Your task to perform on an android device: turn on showing notifications on the lock screen Image 0: 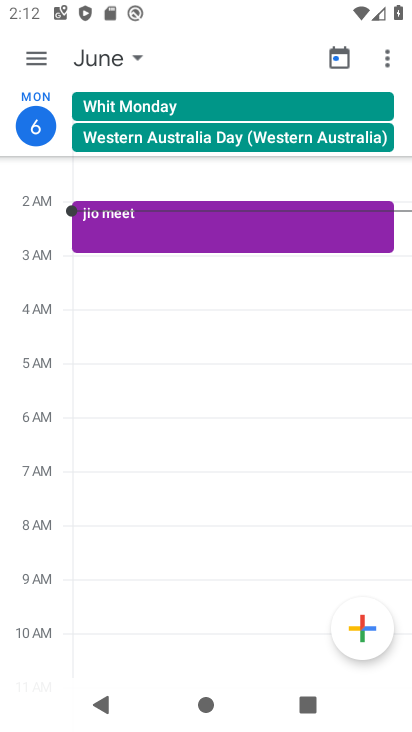
Step 0: press home button
Your task to perform on an android device: turn on showing notifications on the lock screen Image 1: 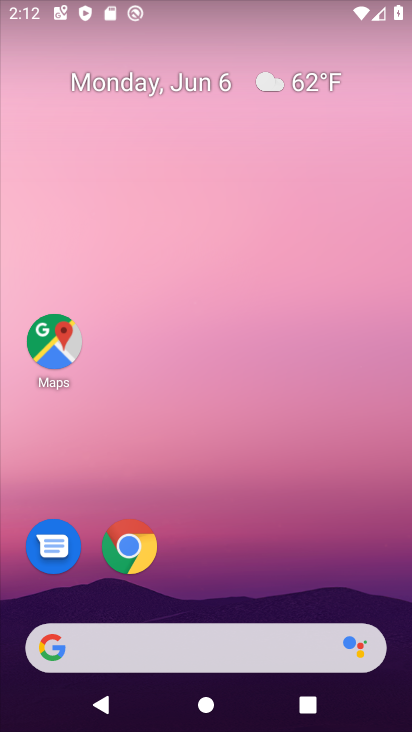
Step 1: drag from (327, 516) to (264, 92)
Your task to perform on an android device: turn on showing notifications on the lock screen Image 2: 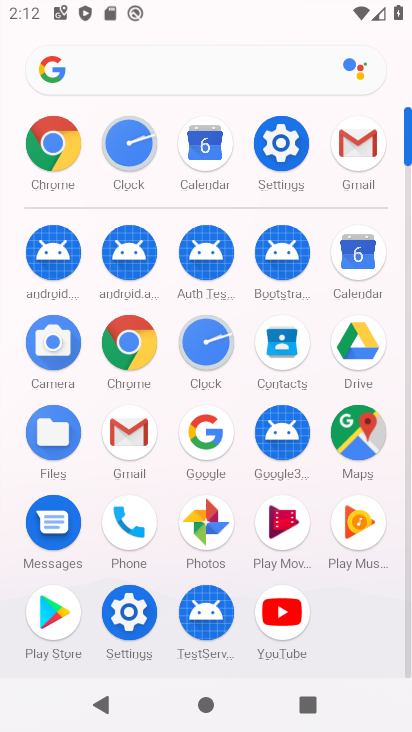
Step 2: click (280, 142)
Your task to perform on an android device: turn on showing notifications on the lock screen Image 3: 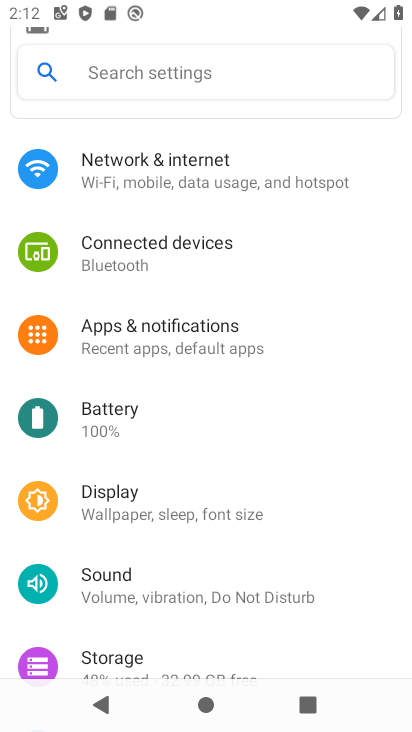
Step 3: click (206, 329)
Your task to perform on an android device: turn on showing notifications on the lock screen Image 4: 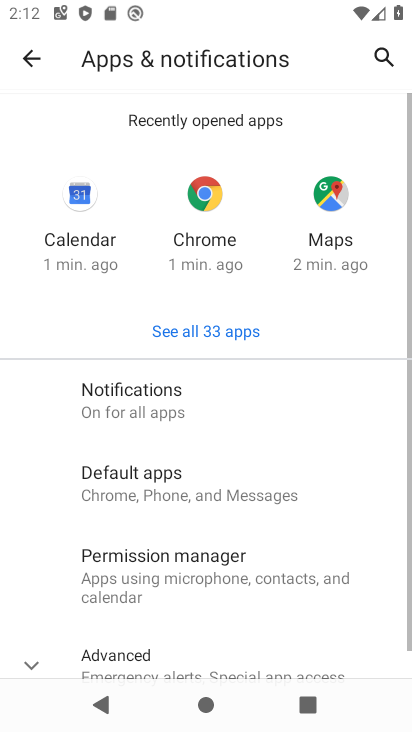
Step 4: drag from (202, 607) to (220, 312)
Your task to perform on an android device: turn on showing notifications on the lock screen Image 5: 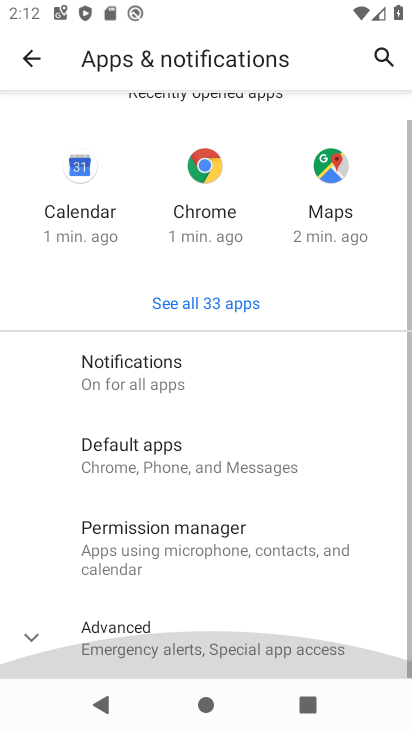
Step 5: click (220, 312)
Your task to perform on an android device: turn on showing notifications on the lock screen Image 6: 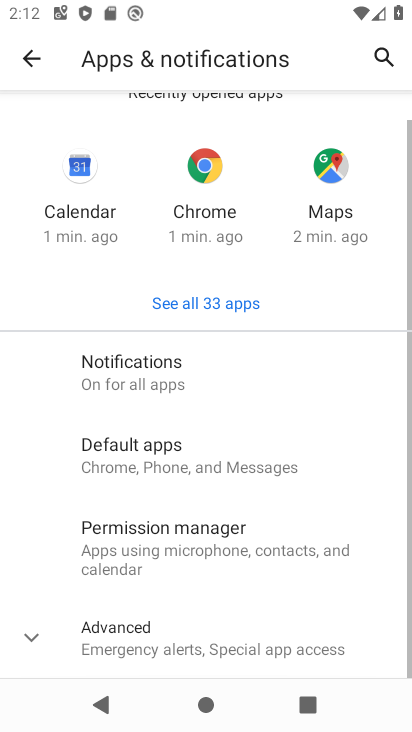
Step 6: click (144, 366)
Your task to perform on an android device: turn on showing notifications on the lock screen Image 7: 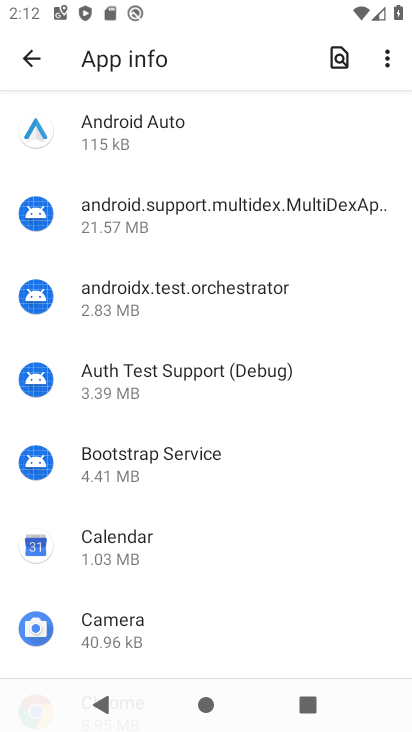
Step 7: click (41, 71)
Your task to perform on an android device: turn on showing notifications on the lock screen Image 8: 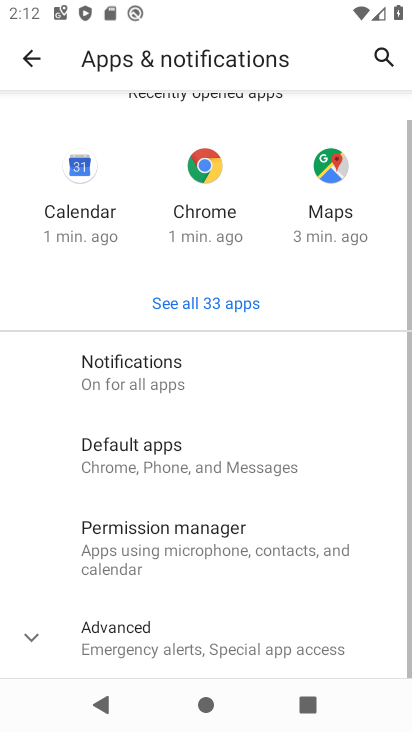
Step 8: click (189, 383)
Your task to perform on an android device: turn on showing notifications on the lock screen Image 9: 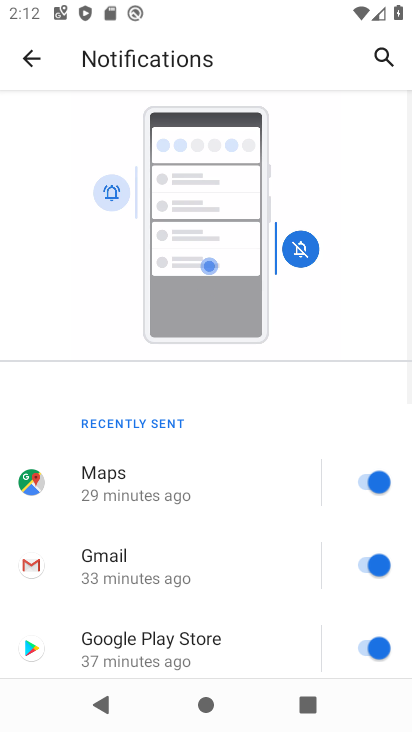
Step 9: drag from (235, 598) to (269, 133)
Your task to perform on an android device: turn on showing notifications on the lock screen Image 10: 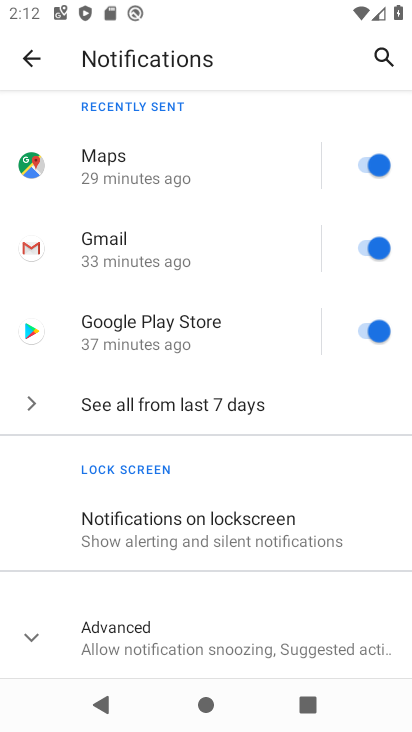
Step 10: click (224, 530)
Your task to perform on an android device: turn on showing notifications on the lock screen Image 11: 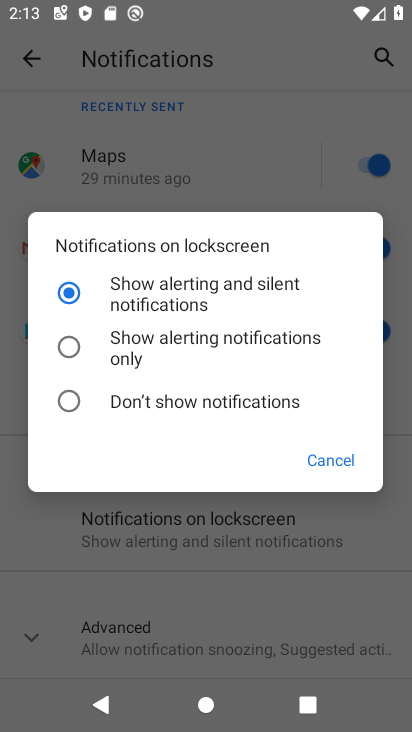
Step 11: click (195, 355)
Your task to perform on an android device: turn on showing notifications on the lock screen Image 12: 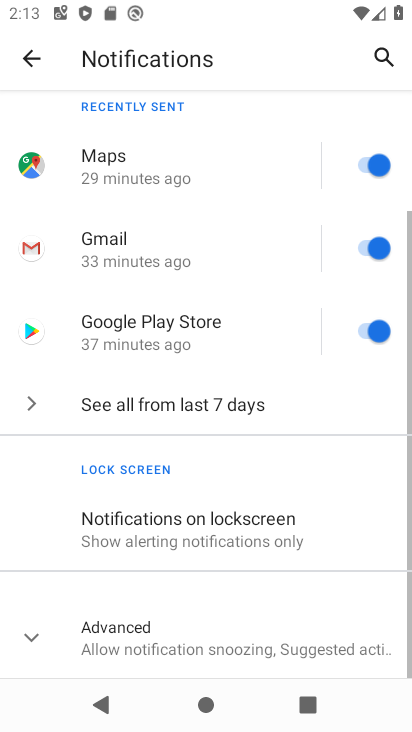
Step 12: task complete